Your task to perform on an android device: turn on location history Image 0: 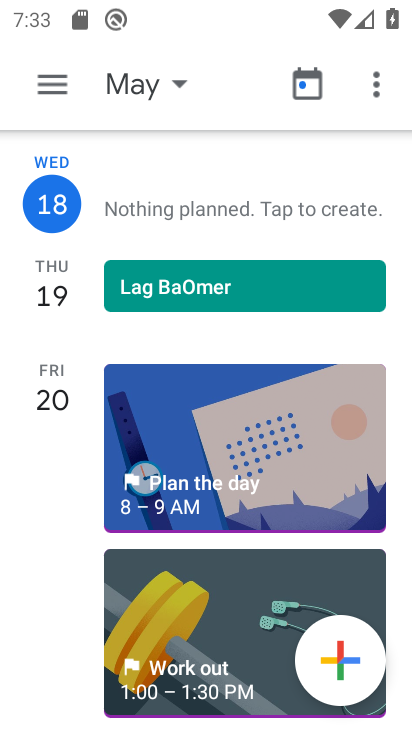
Step 0: press home button
Your task to perform on an android device: turn on location history Image 1: 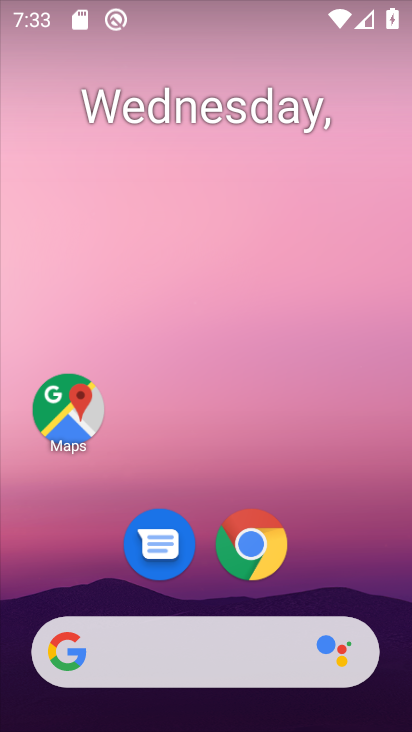
Step 1: click (66, 407)
Your task to perform on an android device: turn on location history Image 2: 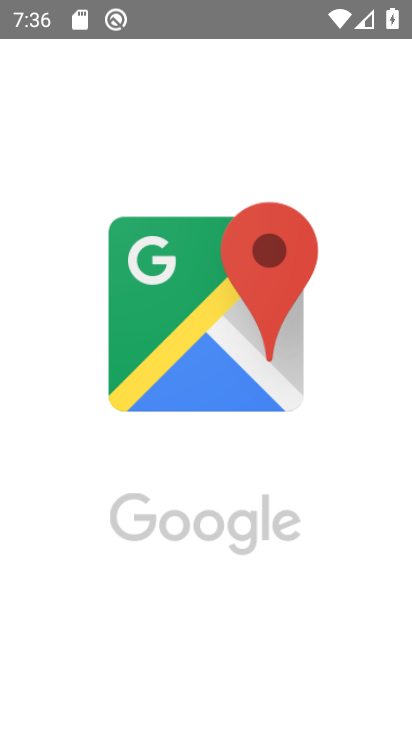
Step 2: task complete